Your task to perform on an android device: add a contact in the contacts app Image 0: 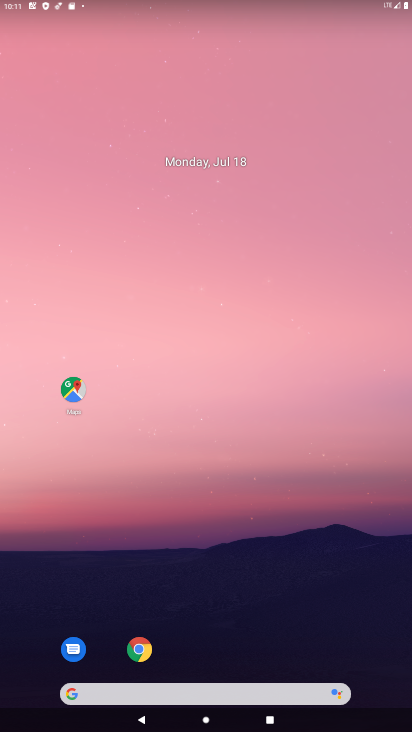
Step 0: drag from (266, 719) to (359, 18)
Your task to perform on an android device: add a contact in the contacts app Image 1: 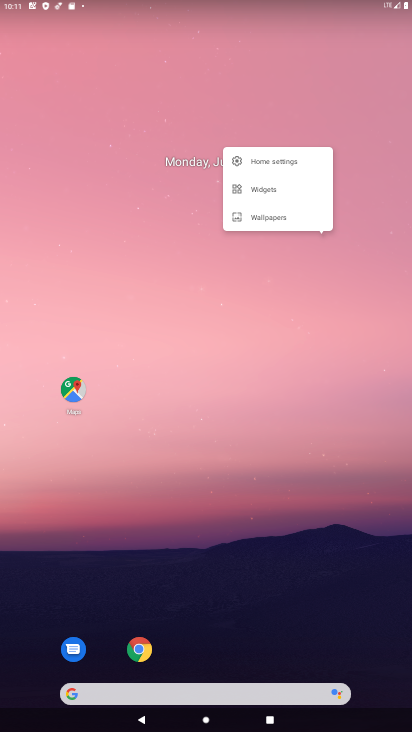
Step 1: drag from (183, 666) to (196, 141)
Your task to perform on an android device: add a contact in the contacts app Image 2: 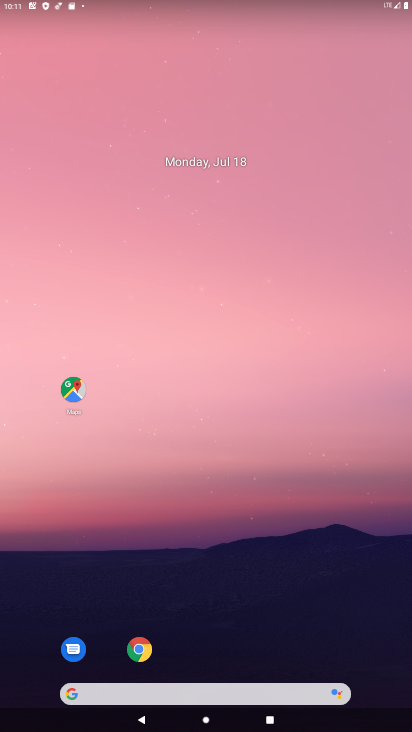
Step 2: drag from (173, 701) to (290, 43)
Your task to perform on an android device: add a contact in the contacts app Image 3: 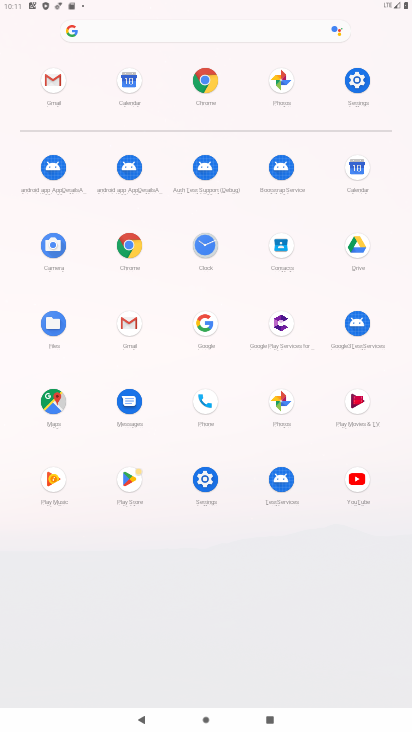
Step 3: click (279, 251)
Your task to perform on an android device: add a contact in the contacts app Image 4: 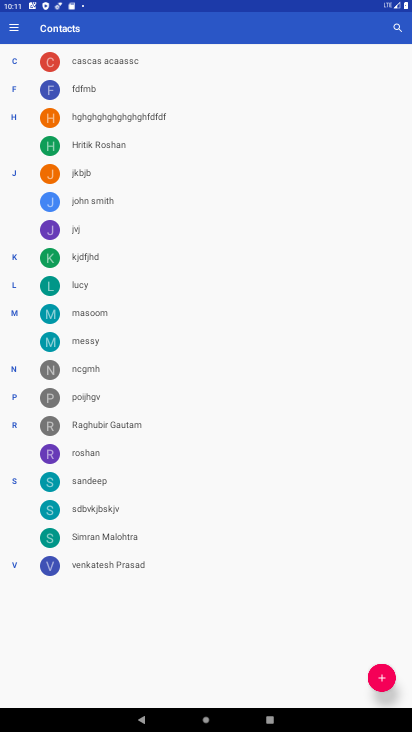
Step 4: click (384, 678)
Your task to perform on an android device: add a contact in the contacts app Image 5: 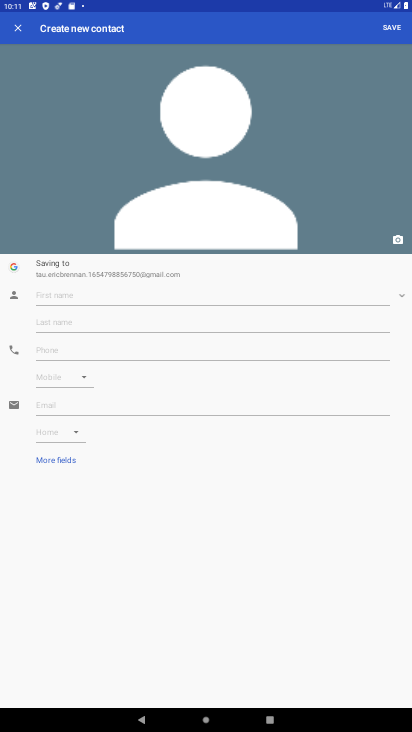
Step 5: click (117, 295)
Your task to perform on an android device: add a contact in the contacts app Image 6: 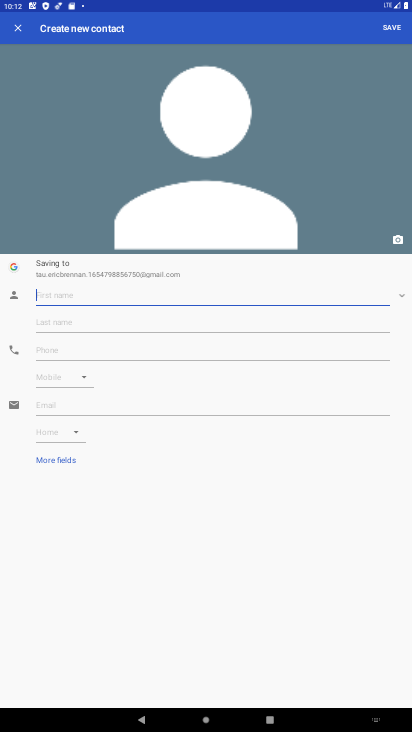
Step 6: type "hgfjh"
Your task to perform on an android device: add a contact in the contacts app Image 7: 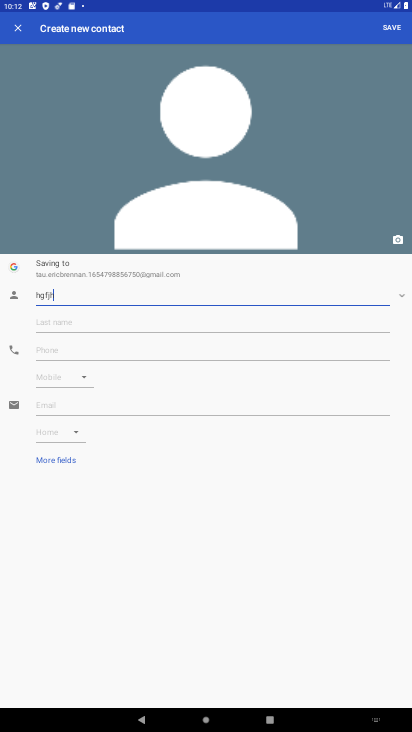
Step 7: click (100, 353)
Your task to perform on an android device: add a contact in the contacts app Image 8: 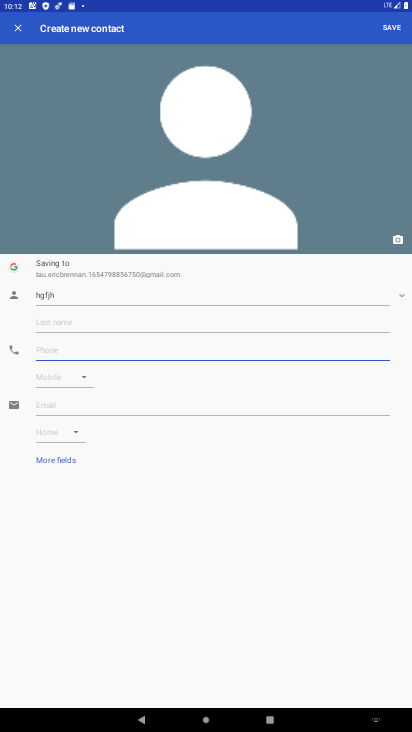
Step 8: type "7598"
Your task to perform on an android device: add a contact in the contacts app Image 9: 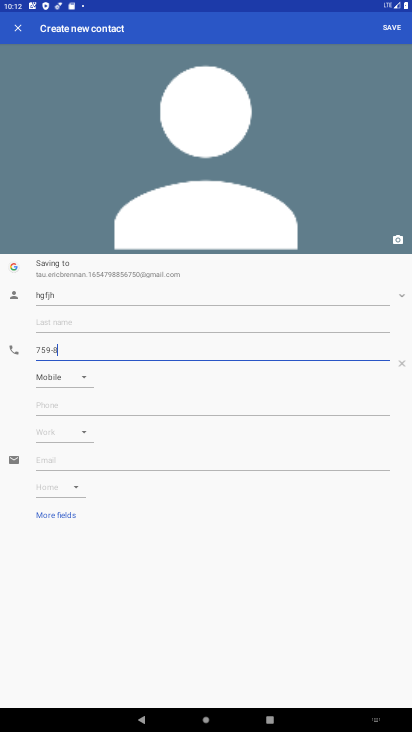
Step 9: click (392, 24)
Your task to perform on an android device: add a contact in the contacts app Image 10: 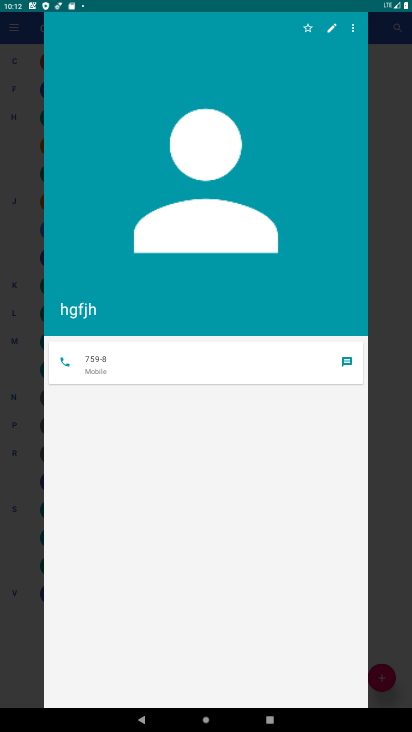
Step 10: task complete